Your task to perform on an android device: Go to wifi settings Image 0: 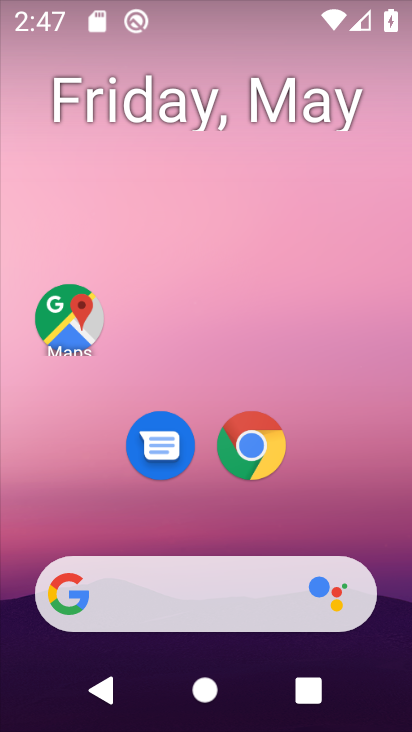
Step 0: drag from (237, 576) to (297, 186)
Your task to perform on an android device: Go to wifi settings Image 1: 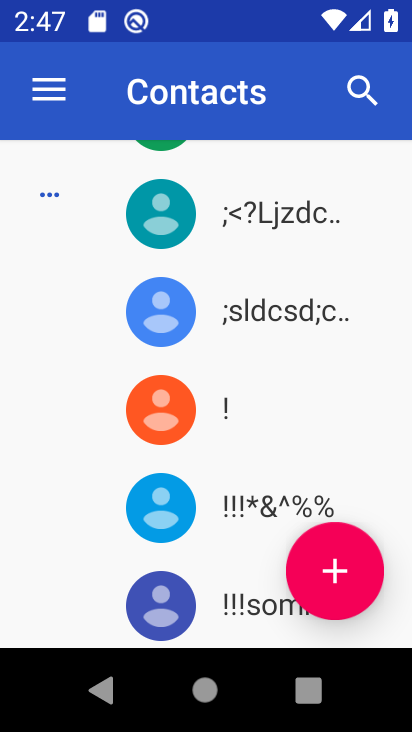
Step 1: press home button
Your task to perform on an android device: Go to wifi settings Image 2: 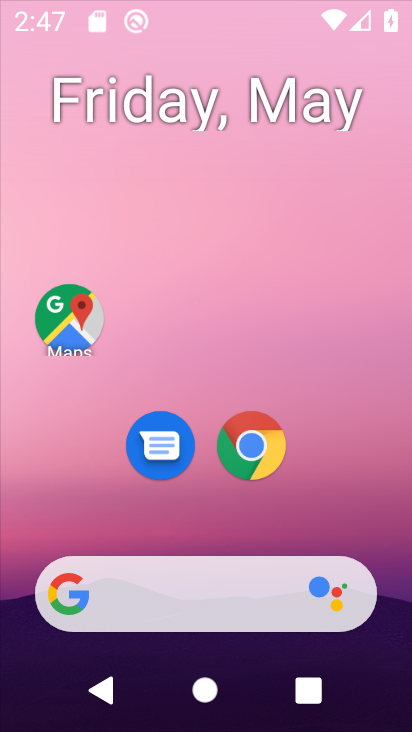
Step 2: drag from (191, 526) to (295, 15)
Your task to perform on an android device: Go to wifi settings Image 3: 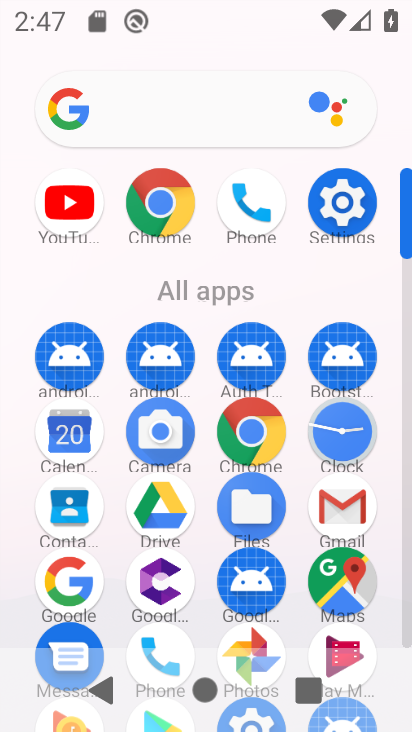
Step 3: click (351, 199)
Your task to perform on an android device: Go to wifi settings Image 4: 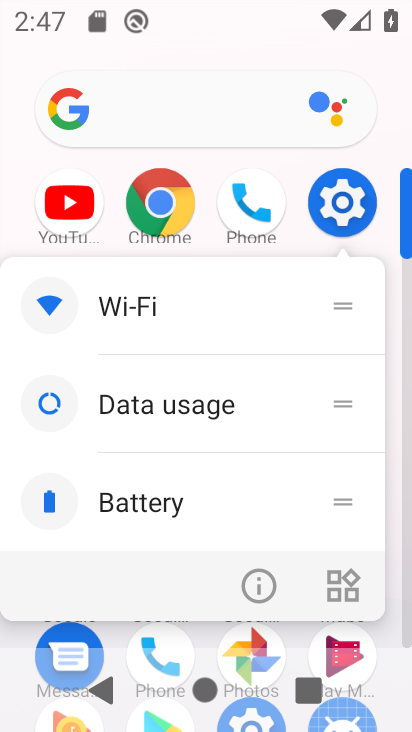
Step 4: click (139, 313)
Your task to perform on an android device: Go to wifi settings Image 5: 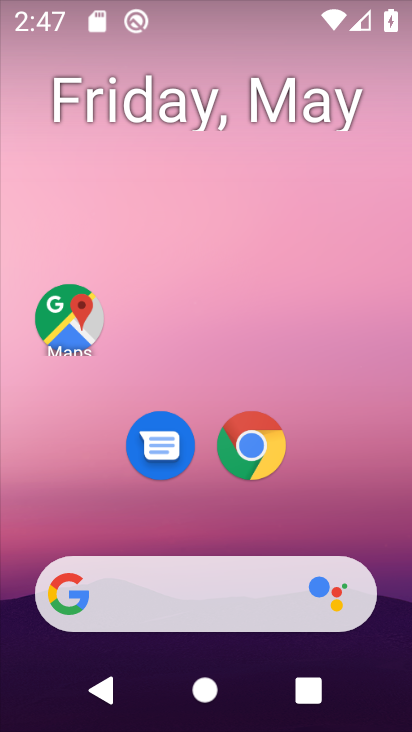
Step 5: drag from (215, 529) to (267, 140)
Your task to perform on an android device: Go to wifi settings Image 6: 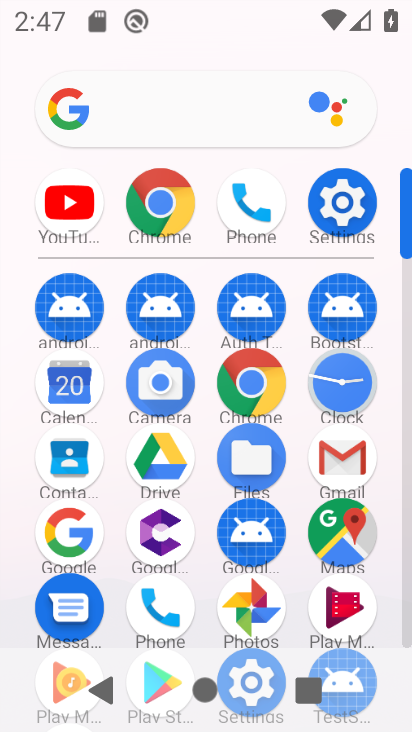
Step 6: click (343, 211)
Your task to perform on an android device: Go to wifi settings Image 7: 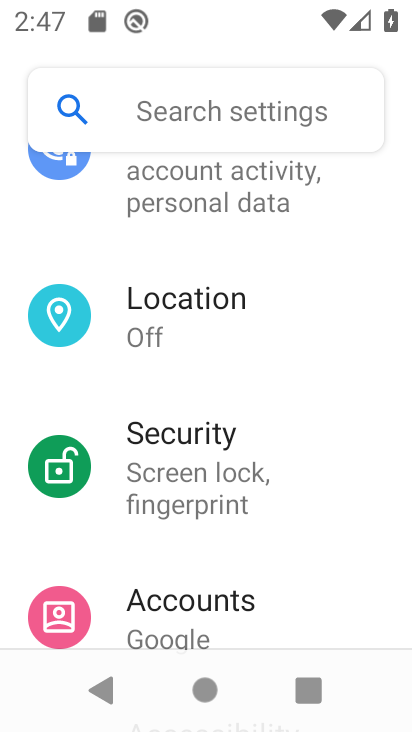
Step 7: drag from (197, 251) to (259, 680)
Your task to perform on an android device: Go to wifi settings Image 8: 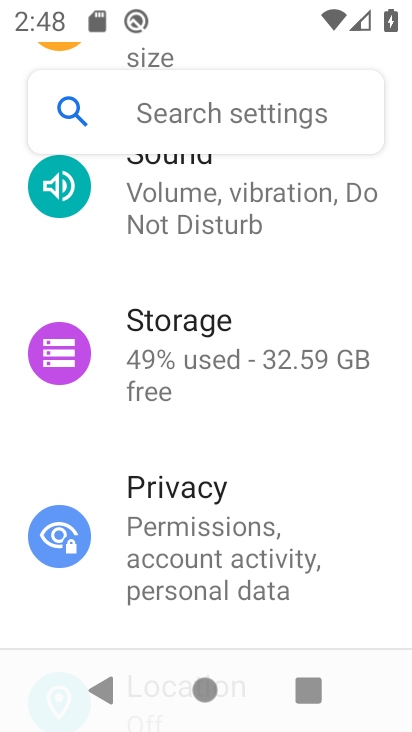
Step 8: drag from (260, 267) to (241, 704)
Your task to perform on an android device: Go to wifi settings Image 9: 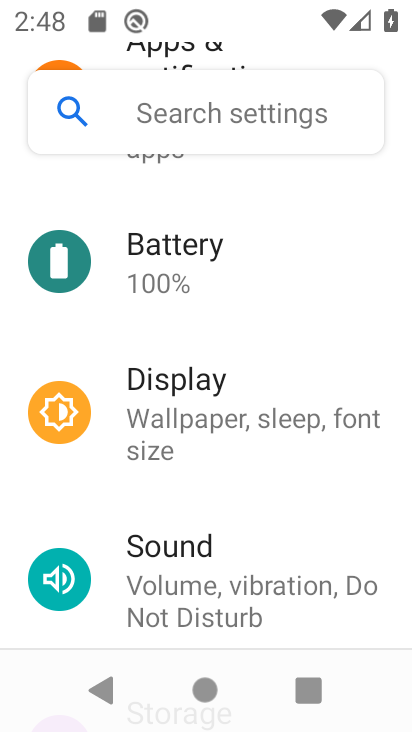
Step 9: drag from (239, 278) to (237, 696)
Your task to perform on an android device: Go to wifi settings Image 10: 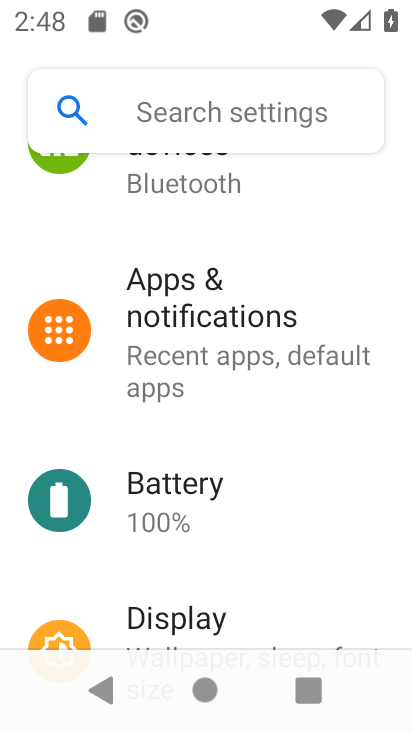
Step 10: drag from (177, 216) to (276, 706)
Your task to perform on an android device: Go to wifi settings Image 11: 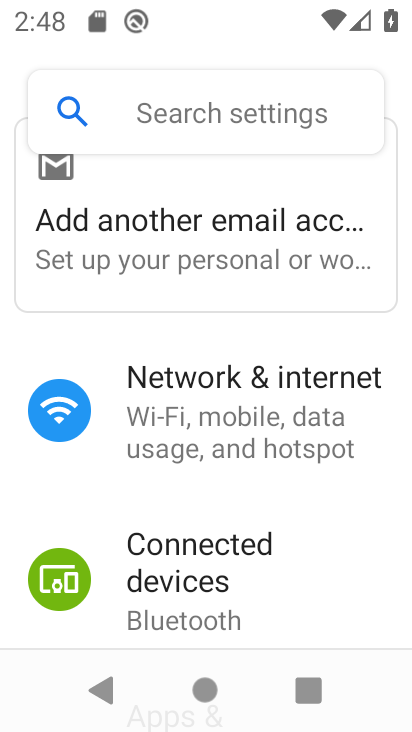
Step 11: click (165, 383)
Your task to perform on an android device: Go to wifi settings Image 12: 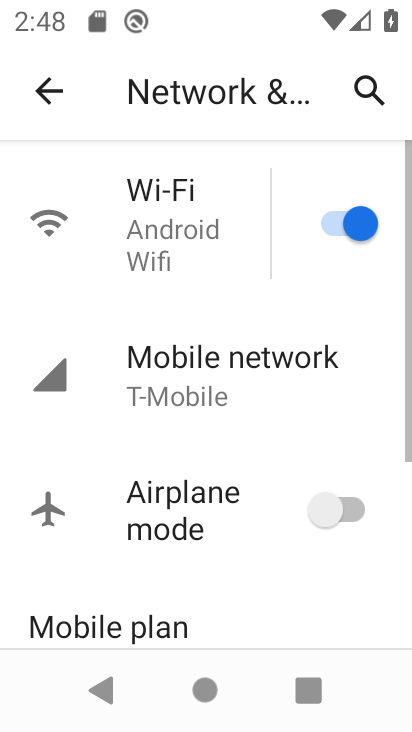
Step 12: click (197, 247)
Your task to perform on an android device: Go to wifi settings Image 13: 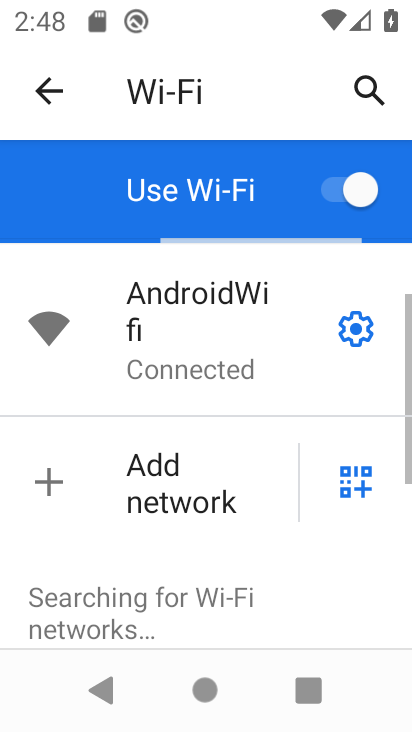
Step 13: drag from (230, 580) to (254, 305)
Your task to perform on an android device: Go to wifi settings Image 14: 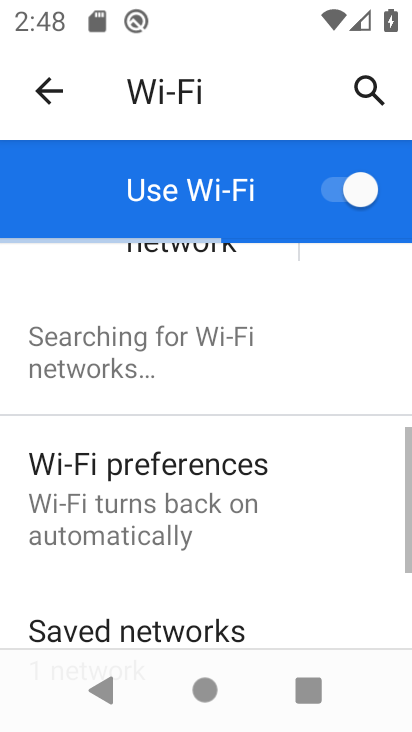
Step 14: drag from (203, 497) to (323, 150)
Your task to perform on an android device: Go to wifi settings Image 15: 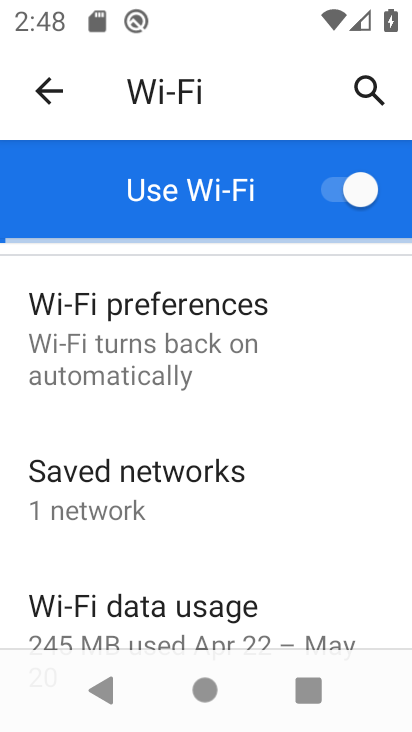
Step 15: drag from (131, 392) to (151, 727)
Your task to perform on an android device: Go to wifi settings Image 16: 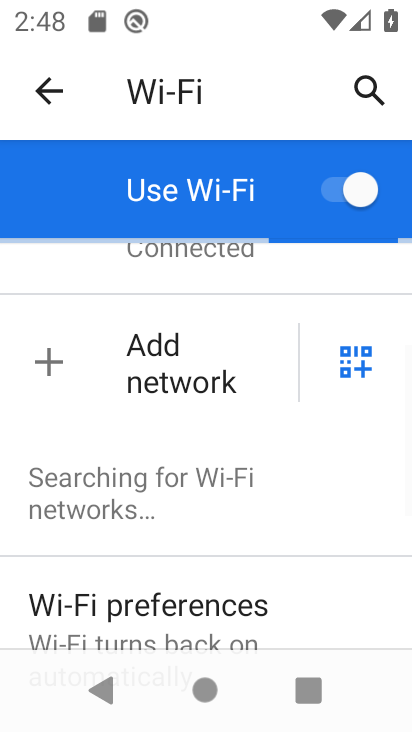
Step 16: drag from (290, 342) to (222, 686)
Your task to perform on an android device: Go to wifi settings Image 17: 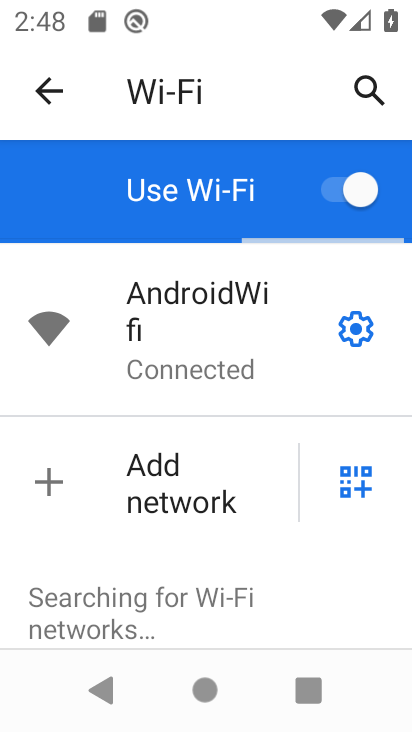
Step 17: drag from (202, 604) to (310, 266)
Your task to perform on an android device: Go to wifi settings Image 18: 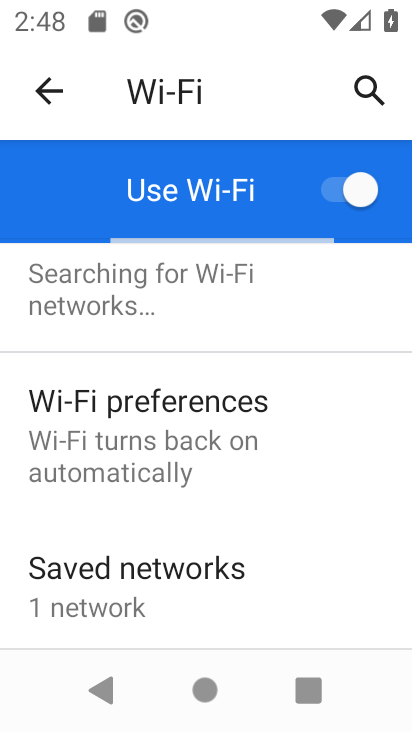
Step 18: drag from (193, 326) to (211, 730)
Your task to perform on an android device: Go to wifi settings Image 19: 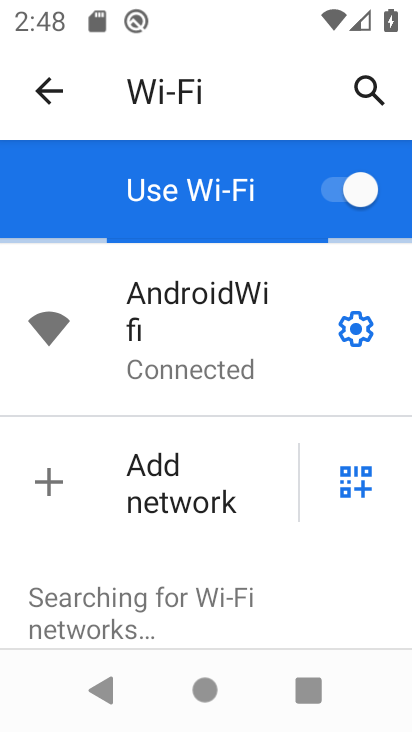
Step 19: click (350, 329)
Your task to perform on an android device: Go to wifi settings Image 20: 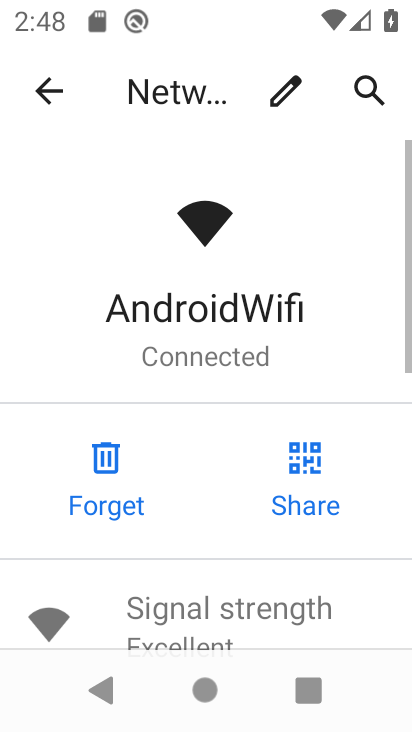
Step 20: task complete